Your task to perform on an android device: Open Google Image 0: 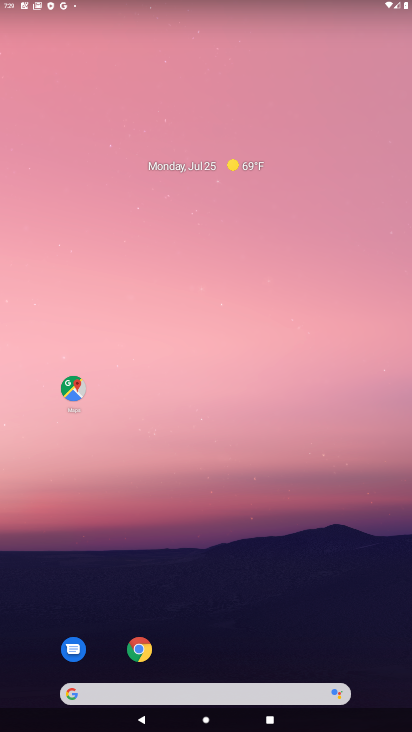
Step 0: drag from (248, 623) to (213, 65)
Your task to perform on an android device: Open Google Image 1: 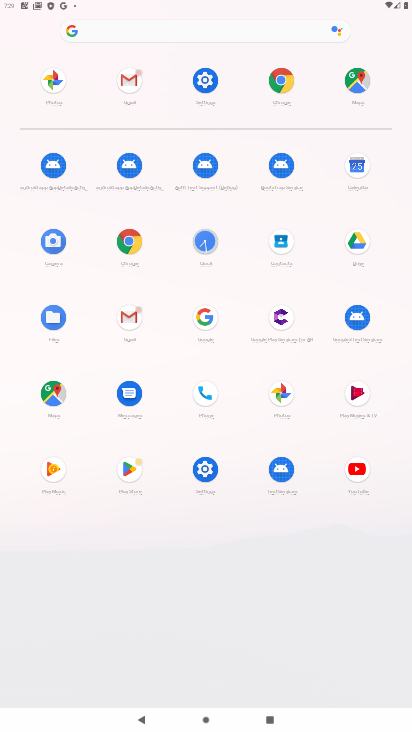
Step 1: click (195, 327)
Your task to perform on an android device: Open Google Image 2: 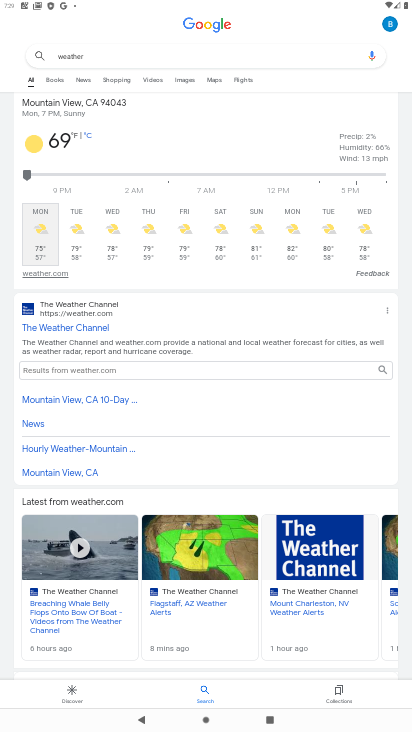
Step 2: task complete